Your task to perform on an android device: Open calendar and show me the first week of next month Image 0: 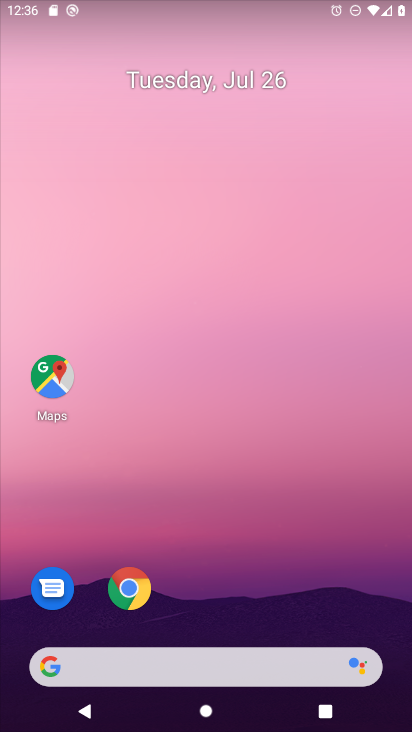
Step 0: drag from (259, 618) to (204, 71)
Your task to perform on an android device: Open calendar and show me the first week of next month Image 1: 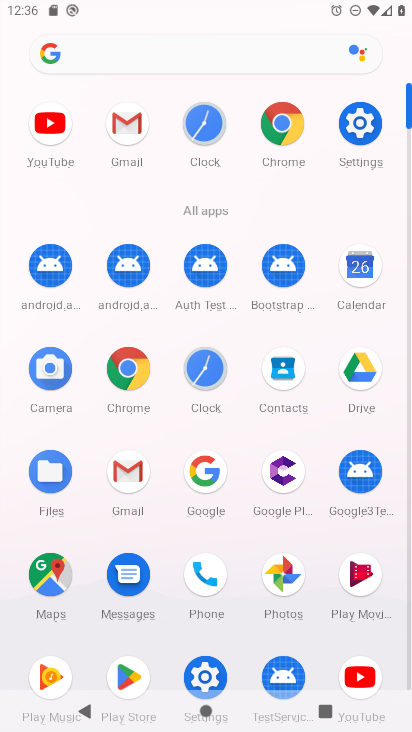
Step 1: click (364, 261)
Your task to perform on an android device: Open calendar and show me the first week of next month Image 2: 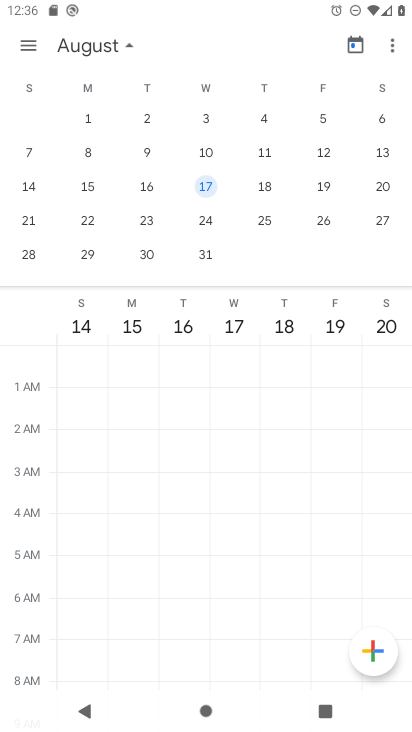
Step 2: click (199, 115)
Your task to perform on an android device: Open calendar and show me the first week of next month Image 3: 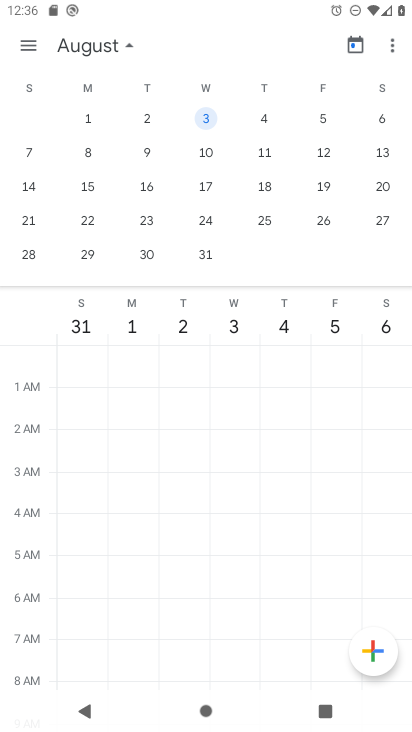
Step 3: task complete